Your task to perform on an android device: Set the phone to "Do not disturb". Image 0: 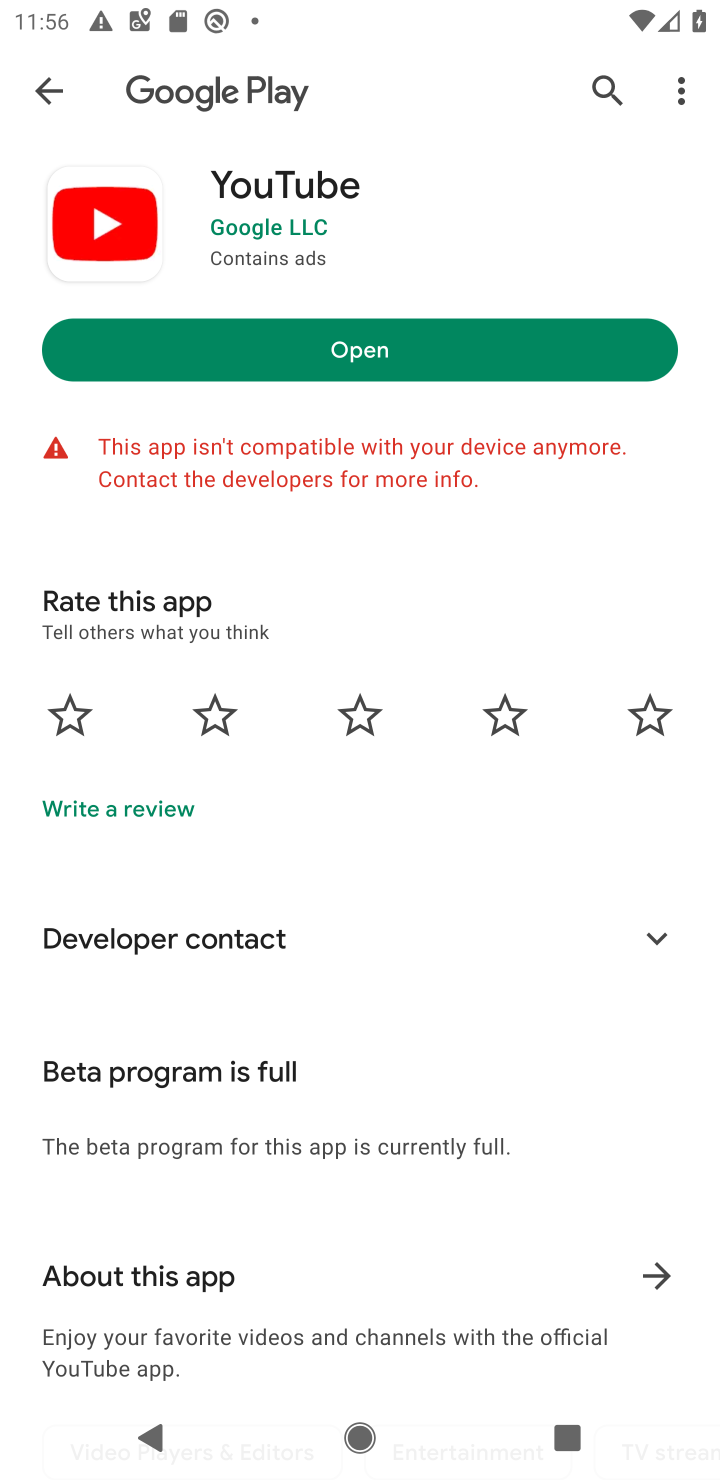
Step 0: press home button
Your task to perform on an android device: Set the phone to "Do not disturb". Image 1: 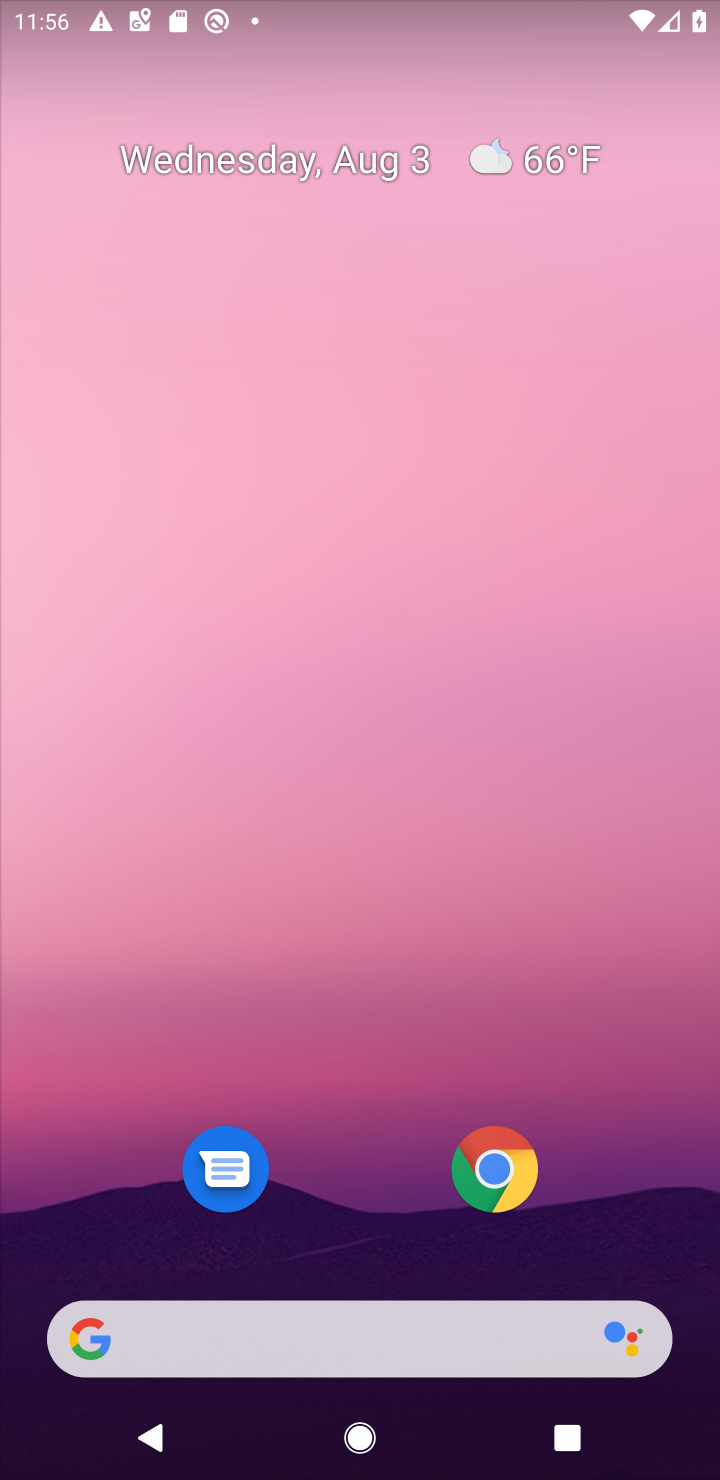
Step 1: drag from (392, 1089) to (403, 20)
Your task to perform on an android device: Set the phone to "Do not disturb". Image 2: 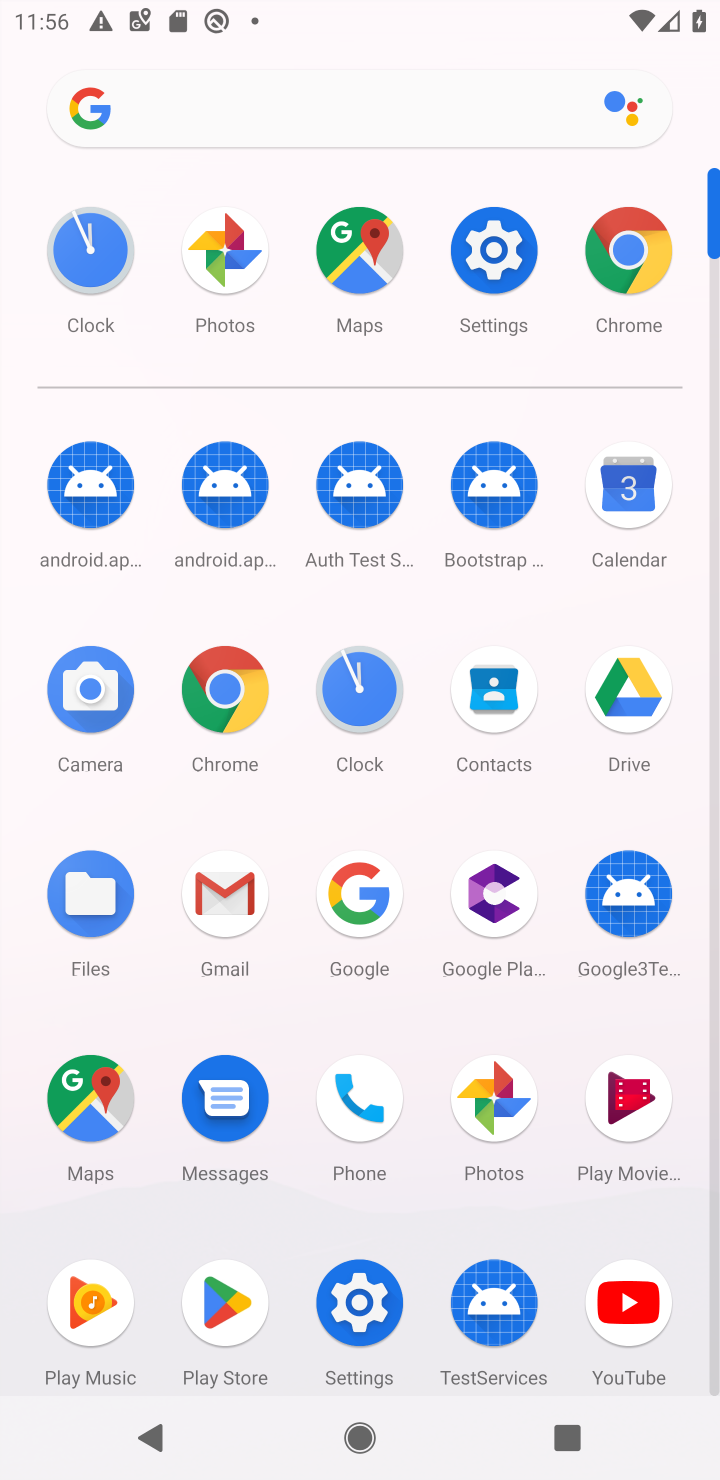
Step 2: click (494, 253)
Your task to perform on an android device: Set the phone to "Do not disturb". Image 3: 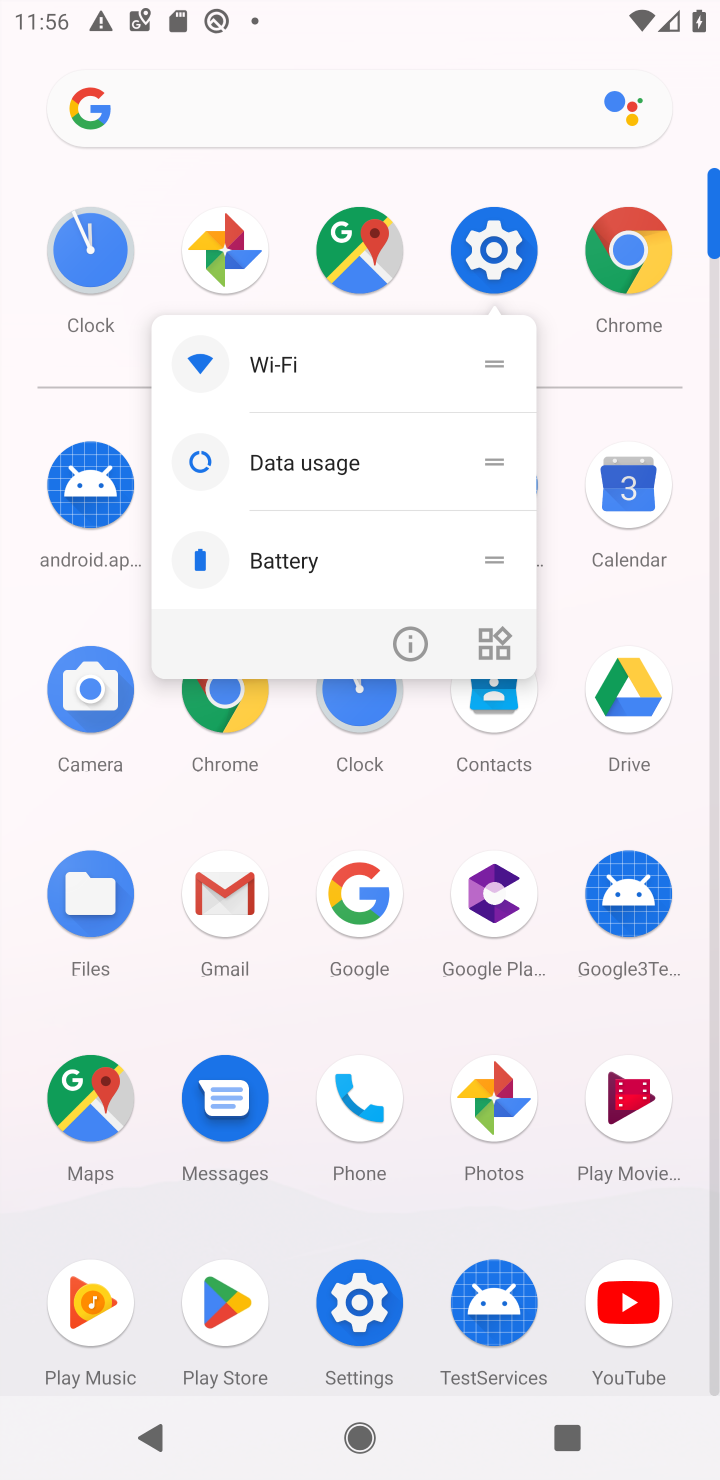
Step 3: click (494, 253)
Your task to perform on an android device: Set the phone to "Do not disturb". Image 4: 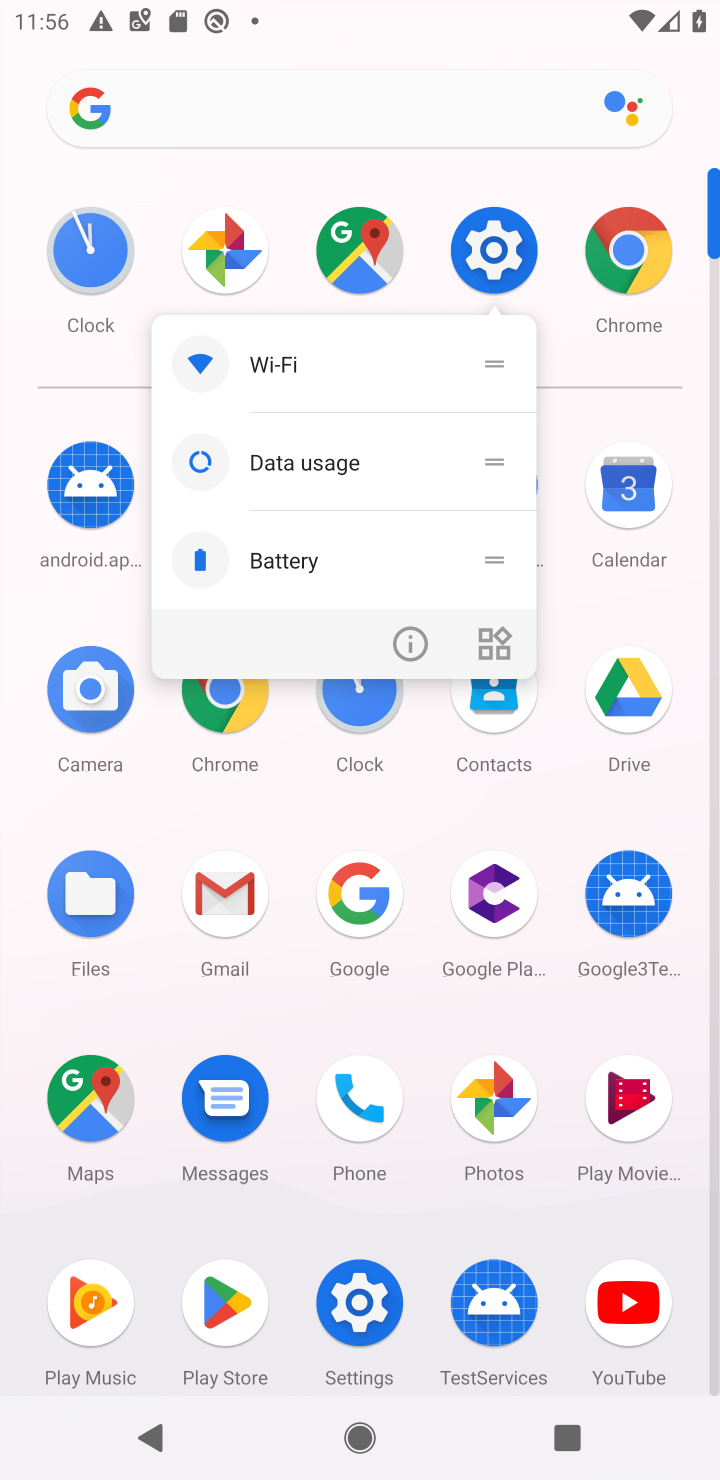
Step 4: click (494, 253)
Your task to perform on an android device: Set the phone to "Do not disturb". Image 5: 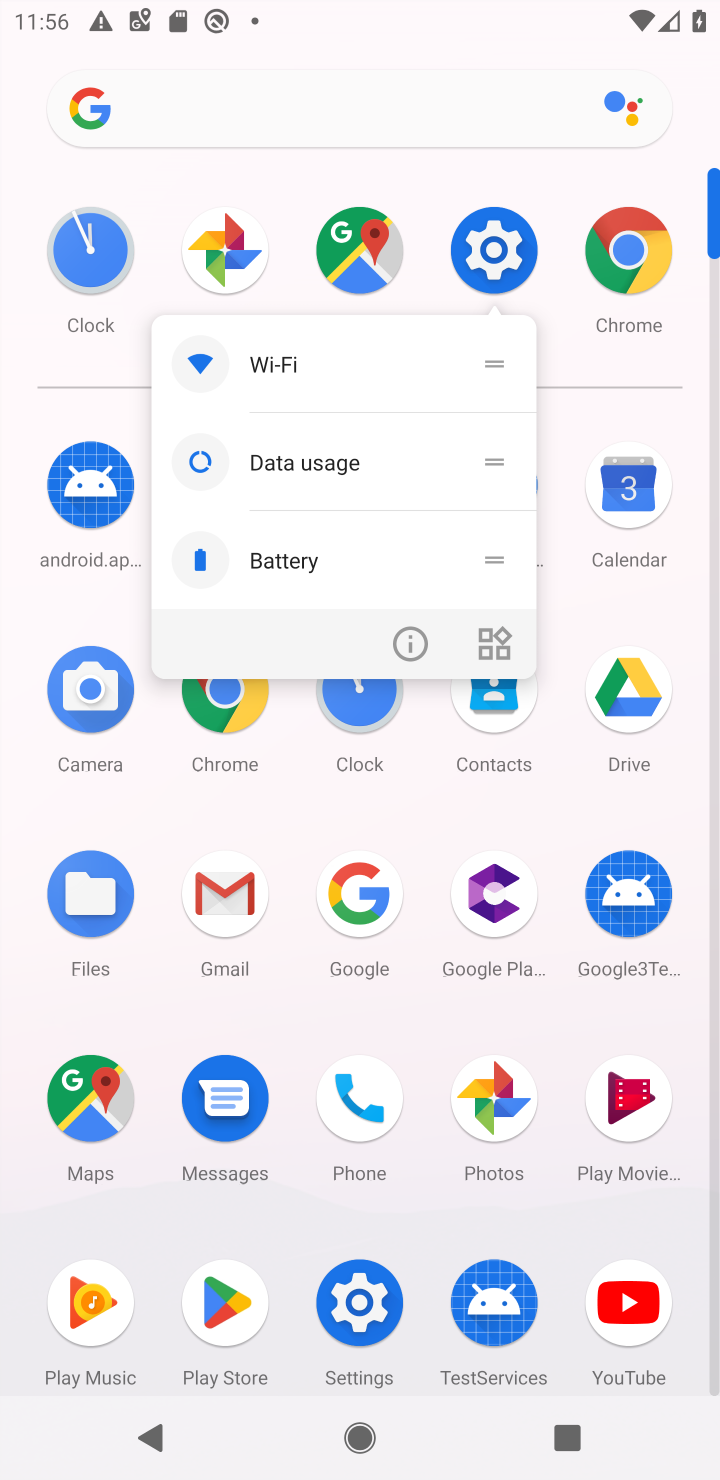
Step 5: click (494, 253)
Your task to perform on an android device: Set the phone to "Do not disturb". Image 6: 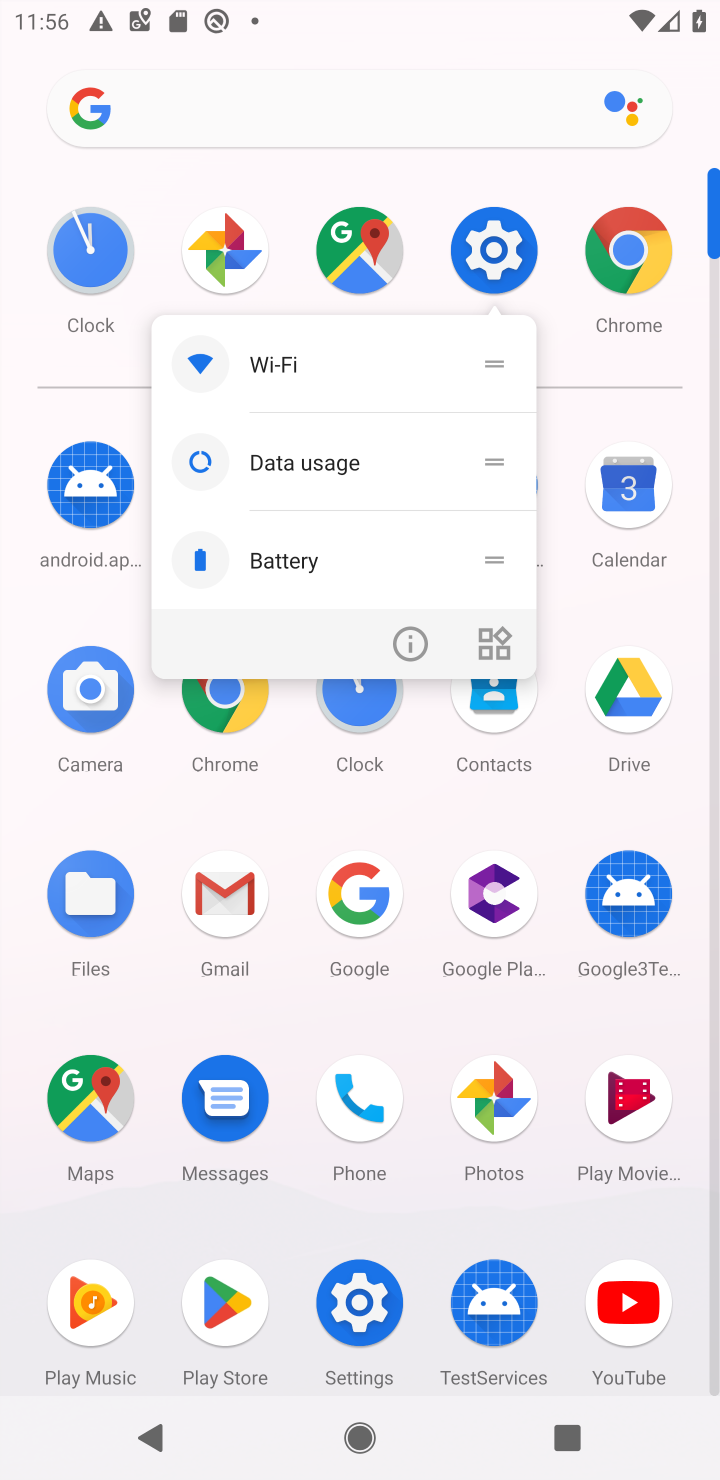
Step 6: click (494, 253)
Your task to perform on an android device: Set the phone to "Do not disturb". Image 7: 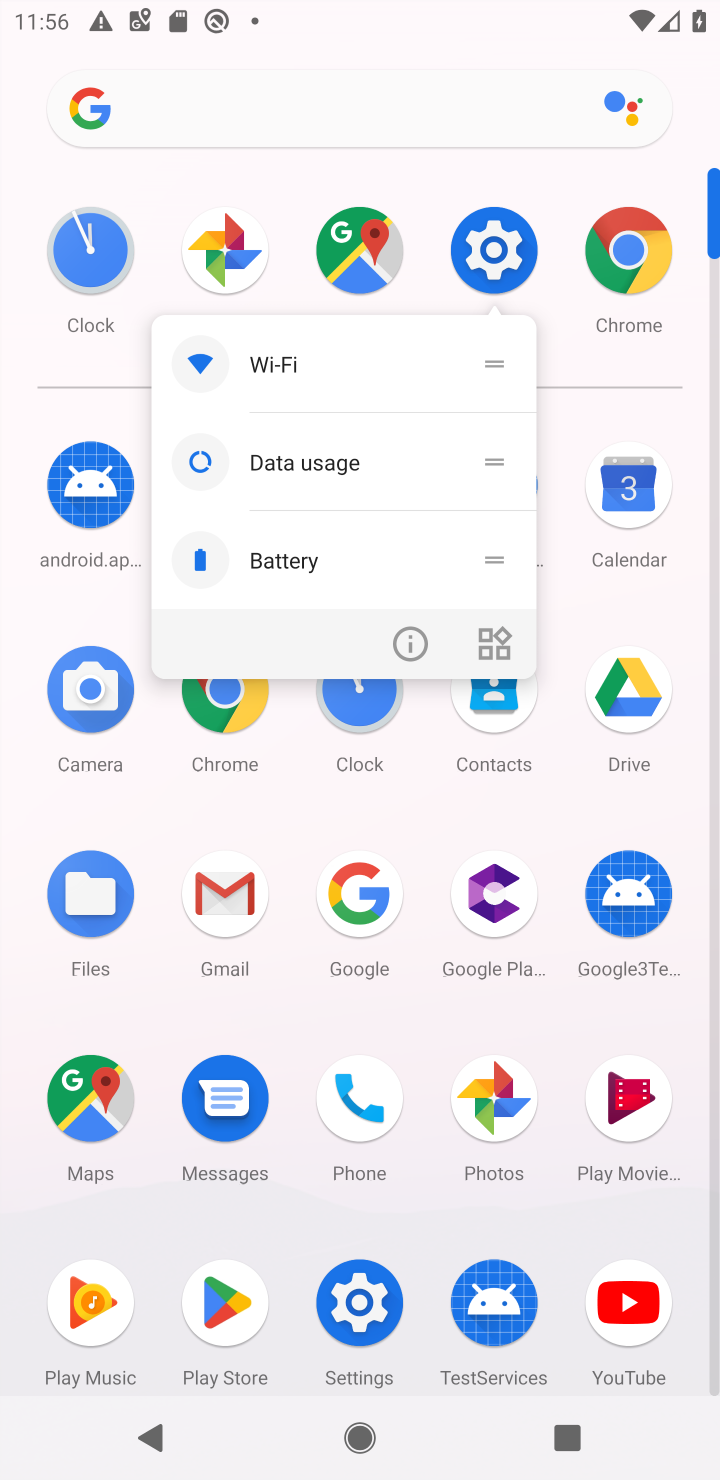
Step 7: click (494, 251)
Your task to perform on an android device: Set the phone to "Do not disturb". Image 8: 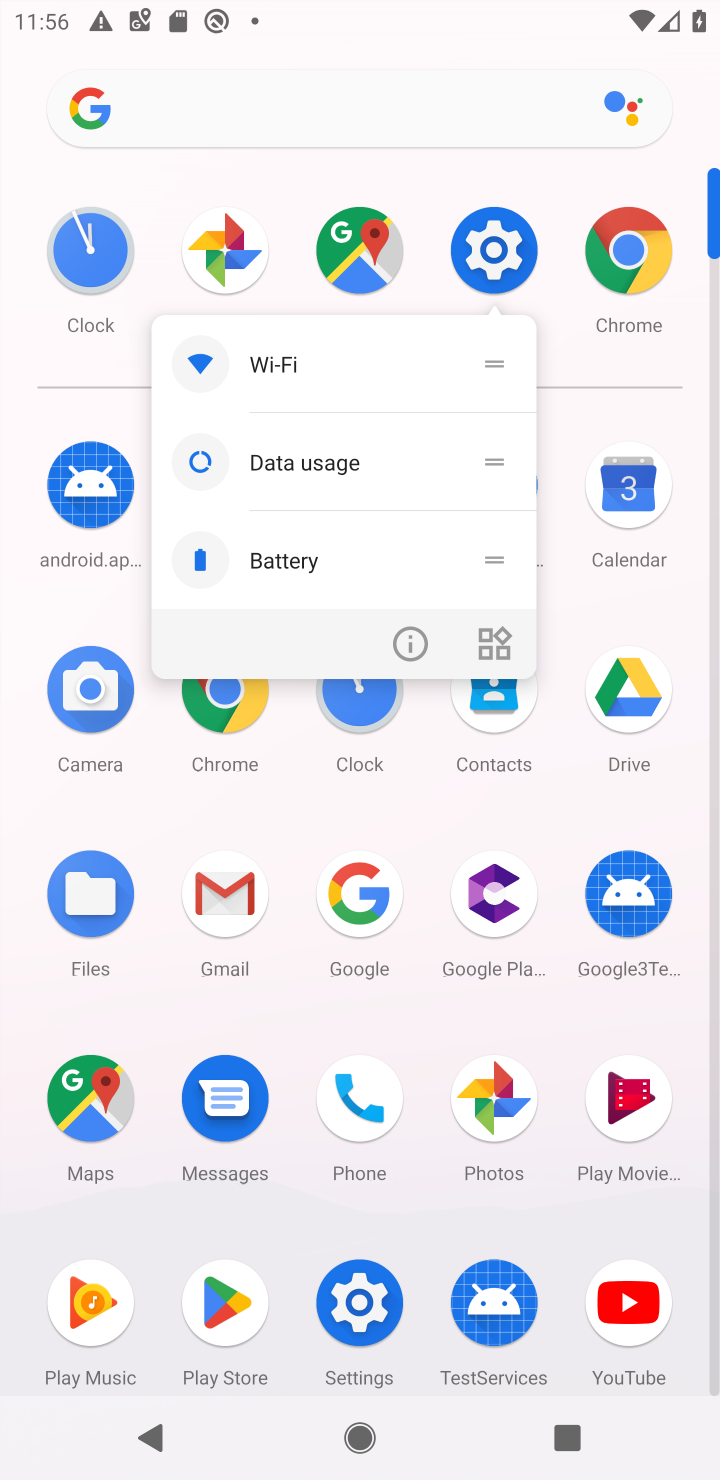
Step 8: click (493, 257)
Your task to perform on an android device: Set the phone to "Do not disturb". Image 9: 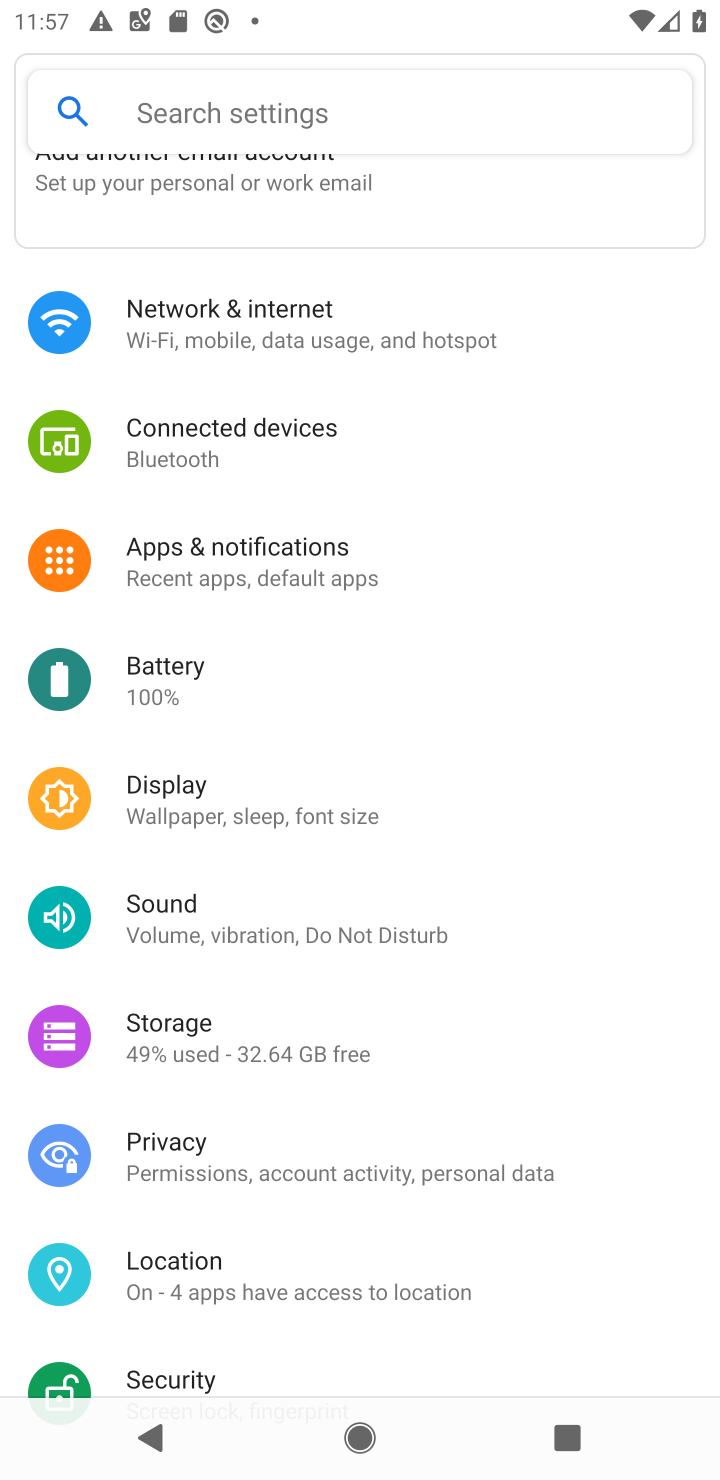
Step 9: click (141, 911)
Your task to perform on an android device: Set the phone to "Do not disturb". Image 10: 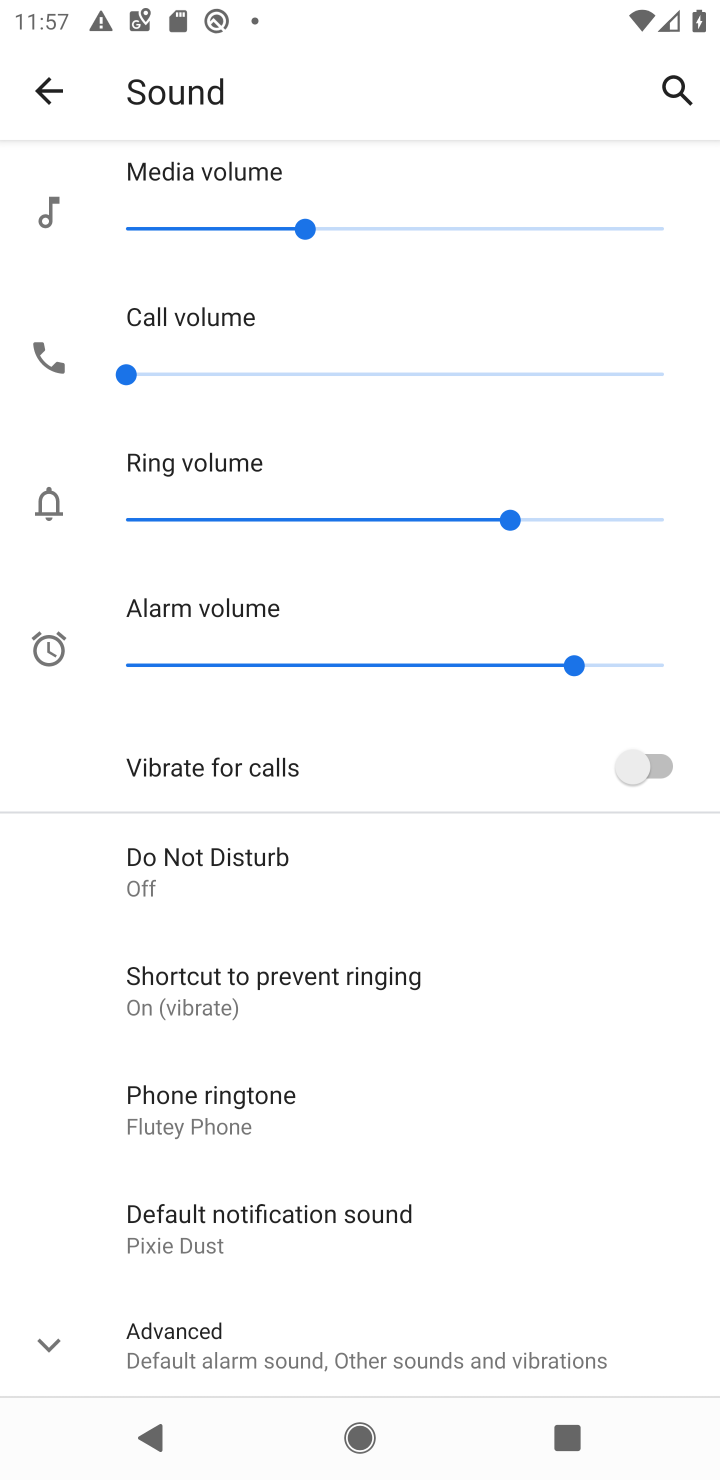
Step 10: click (235, 854)
Your task to perform on an android device: Set the phone to "Do not disturb". Image 11: 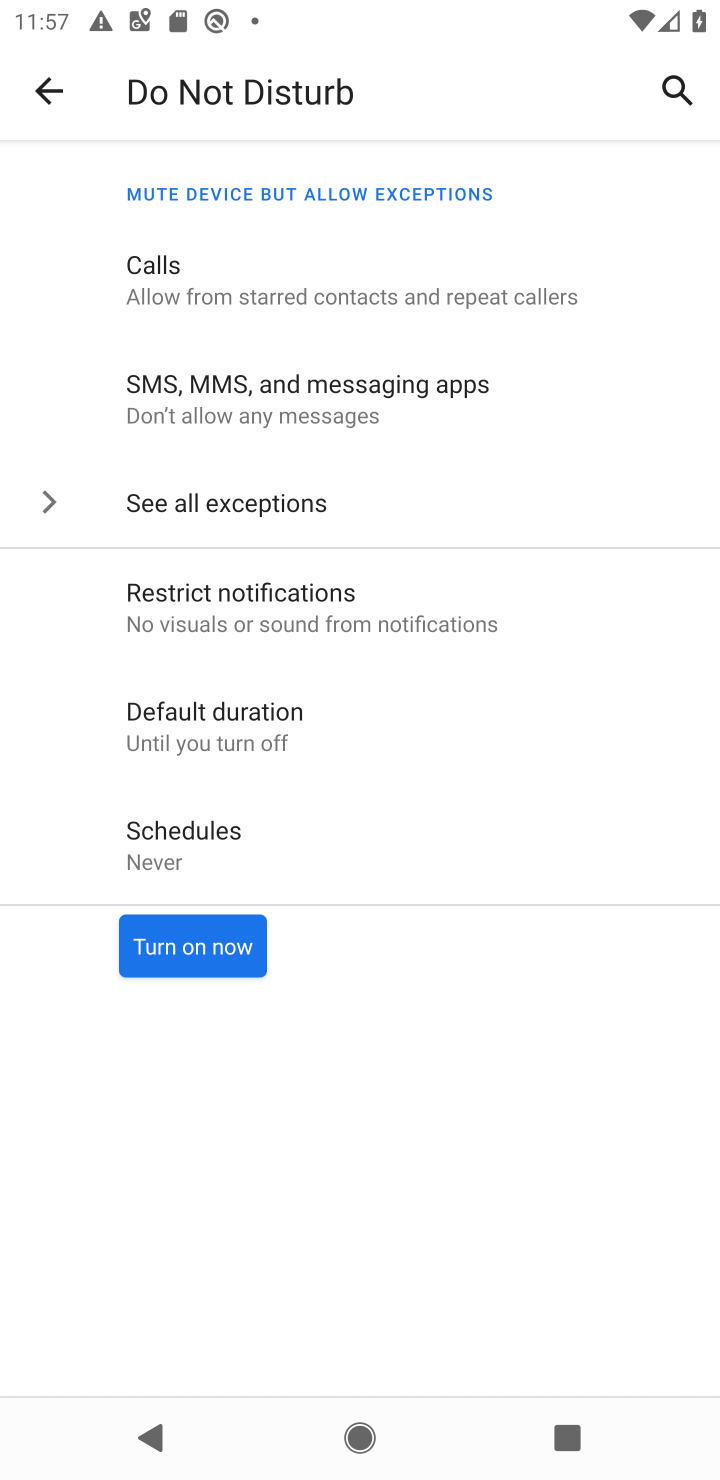
Step 11: click (192, 965)
Your task to perform on an android device: Set the phone to "Do not disturb". Image 12: 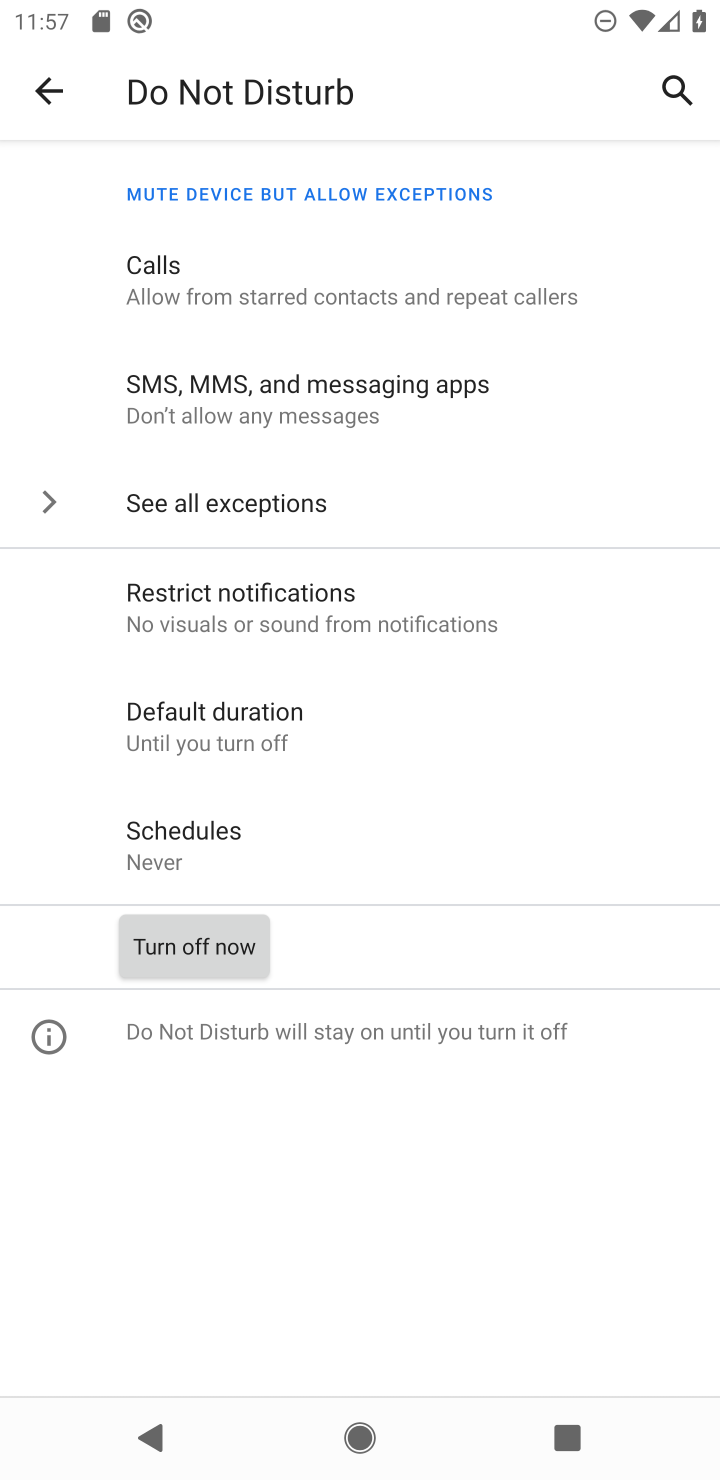
Step 12: task complete